Your task to perform on an android device: Search for seafood restaurants on Google Maps Image 0: 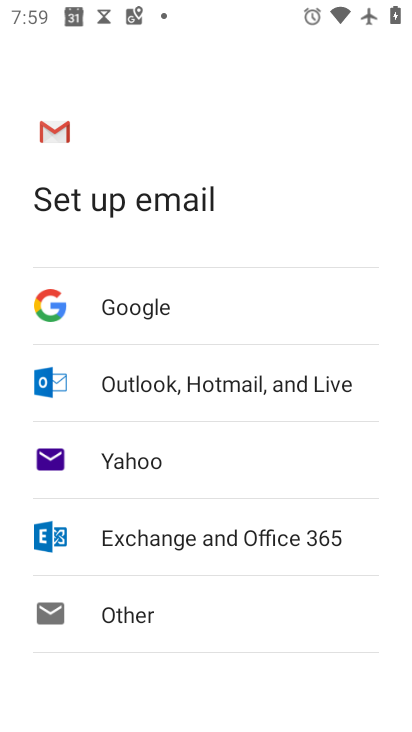
Step 0: press home button
Your task to perform on an android device: Search for seafood restaurants on Google Maps Image 1: 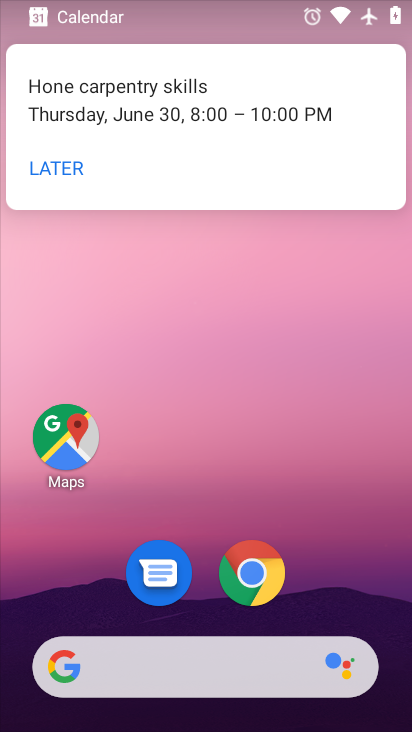
Step 1: click (68, 444)
Your task to perform on an android device: Search for seafood restaurants on Google Maps Image 2: 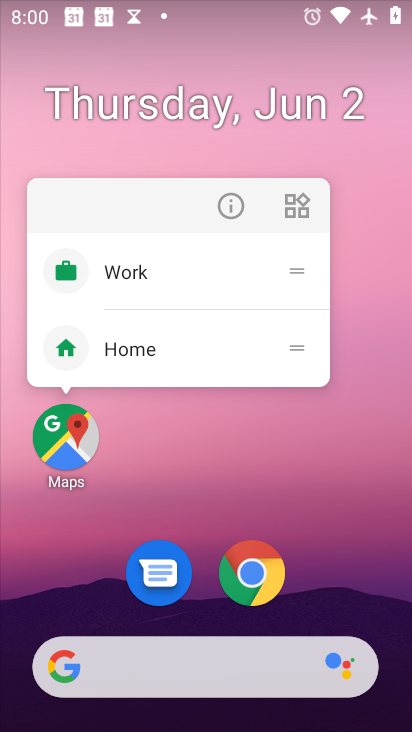
Step 2: click (61, 451)
Your task to perform on an android device: Search for seafood restaurants on Google Maps Image 3: 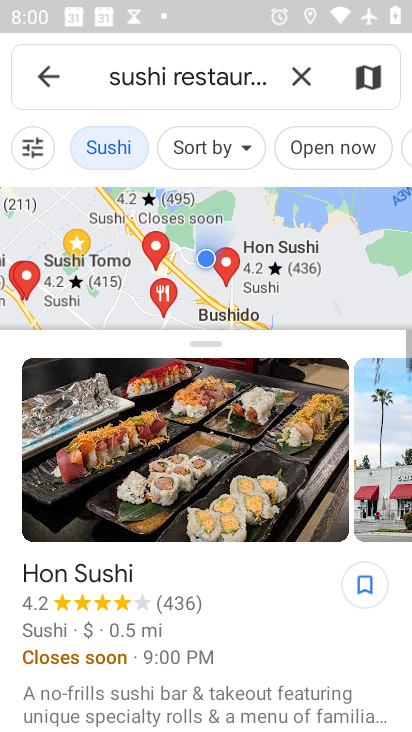
Step 3: click (292, 81)
Your task to perform on an android device: Search for seafood restaurants on Google Maps Image 4: 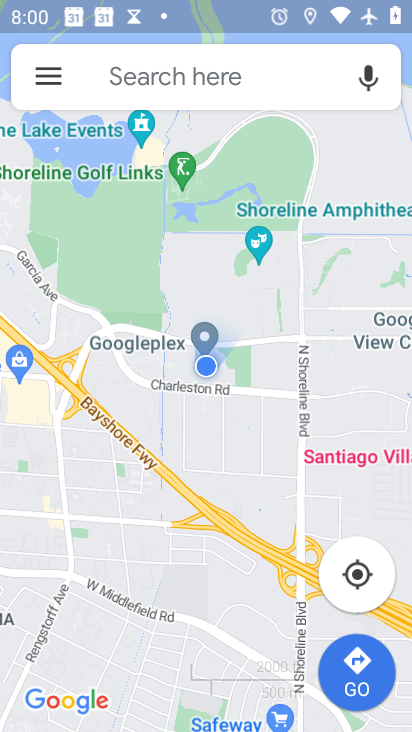
Step 4: click (192, 73)
Your task to perform on an android device: Search for seafood restaurants on Google Maps Image 5: 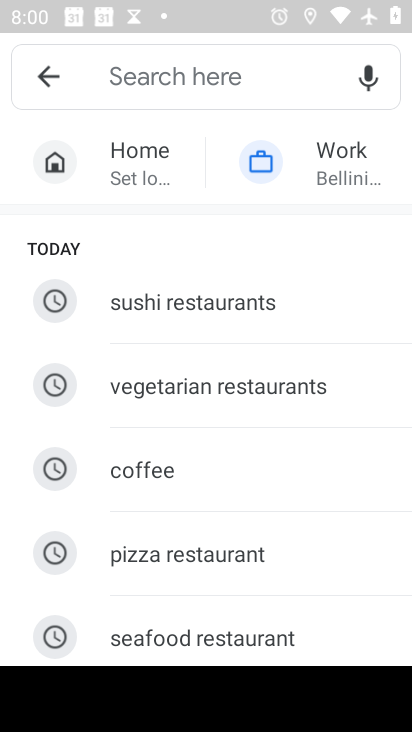
Step 5: click (180, 641)
Your task to perform on an android device: Search for seafood restaurants on Google Maps Image 6: 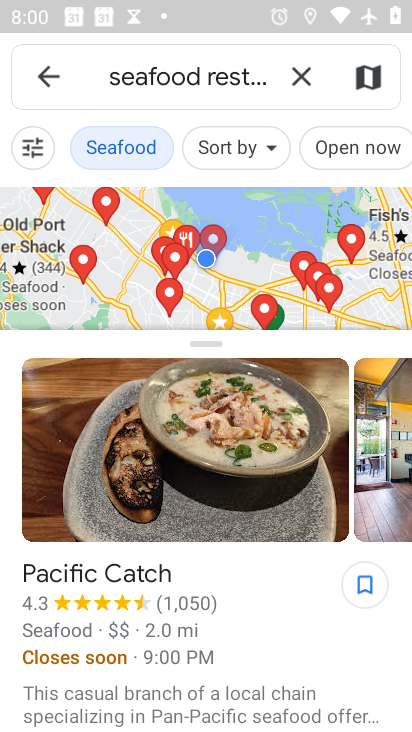
Step 6: task complete